Your task to perform on an android device: What's the weather today? Image 0: 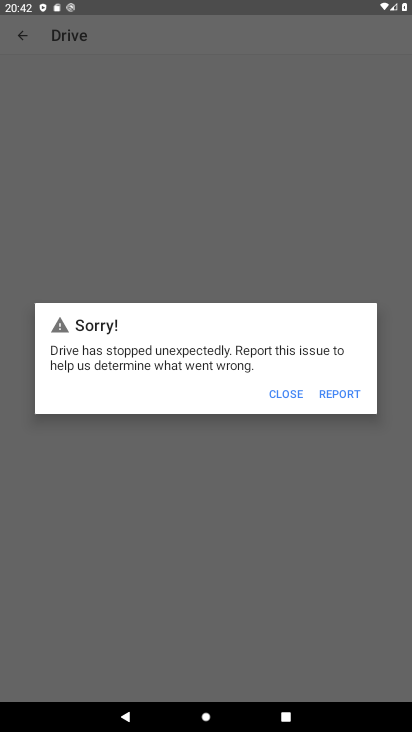
Step 0: press home button
Your task to perform on an android device: What's the weather today? Image 1: 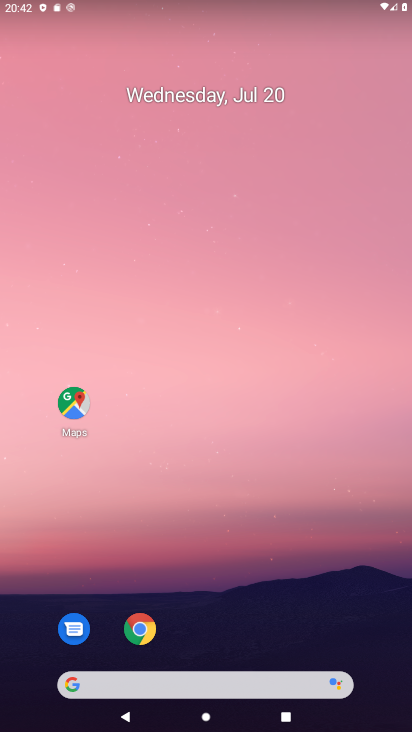
Step 1: drag from (216, 635) to (230, 95)
Your task to perform on an android device: What's the weather today? Image 2: 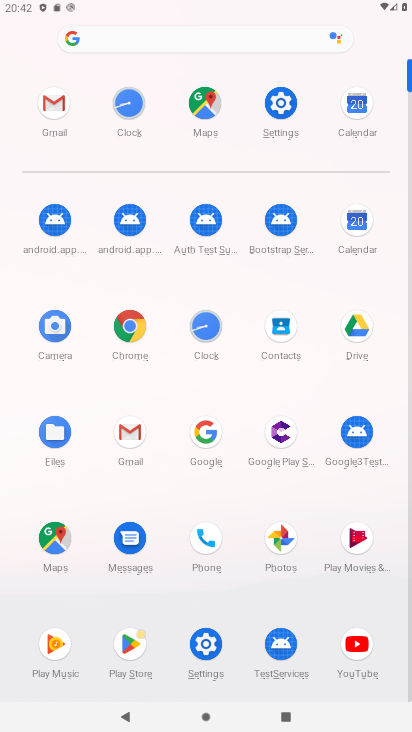
Step 2: click (227, 440)
Your task to perform on an android device: What's the weather today? Image 3: 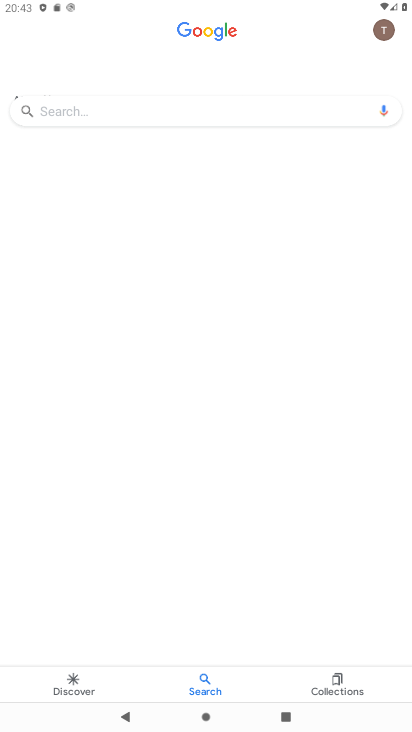
Step 3: click (92, 97)
Your task to perform on an android device: What's the weather today? Image 4: 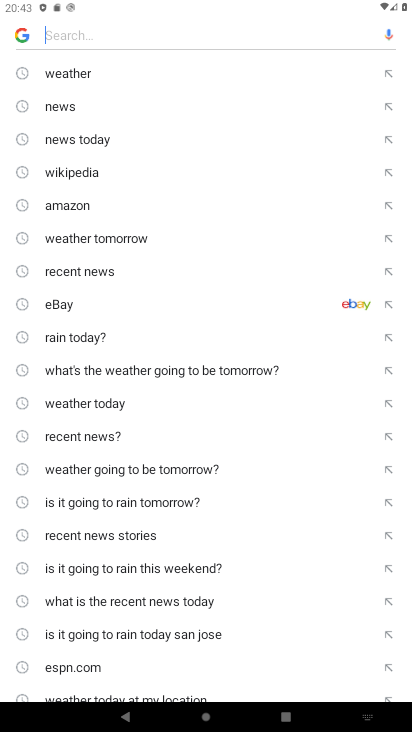
Step 4: click (65, 83)
Your task to perform on an android device: What's the weather today? Image 5: 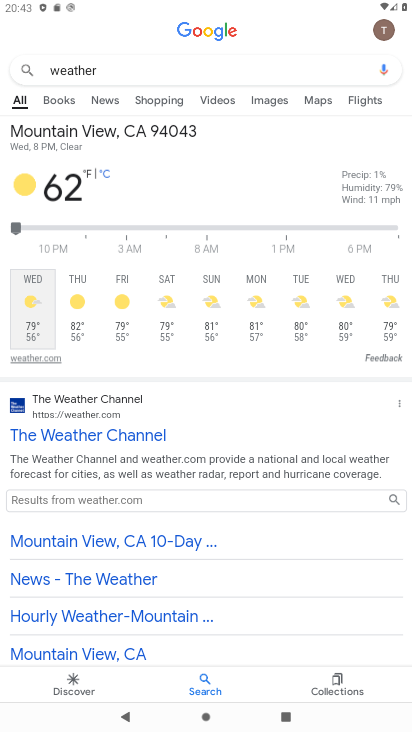
Step 5: task complete